Your task to perform on an android device: move a message to another label in the gmail app Image 0: 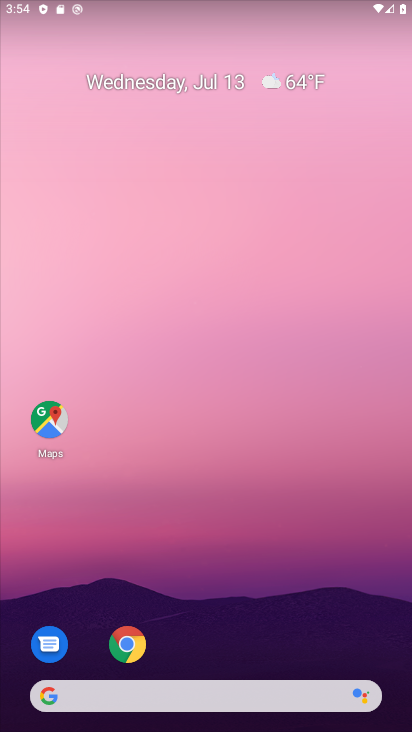
Step 0: drag from (218, 619) to (135, 49)
Your task to perform on an android device: move a message to another label in the gmail app Image 1: 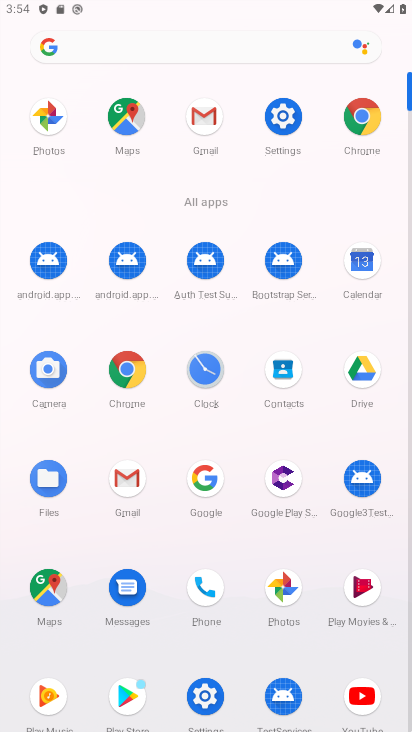
Step 1: click (124, 480)
Your task to perform on an android device: move a message to another label in the gmail app Image 2: 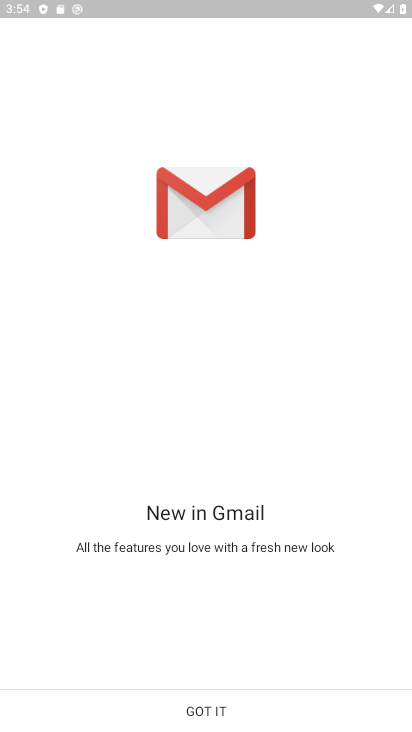
Step 2: click (203, 704)
Your task to perform on an android device: move a message to another label in the gmail app Image 3: 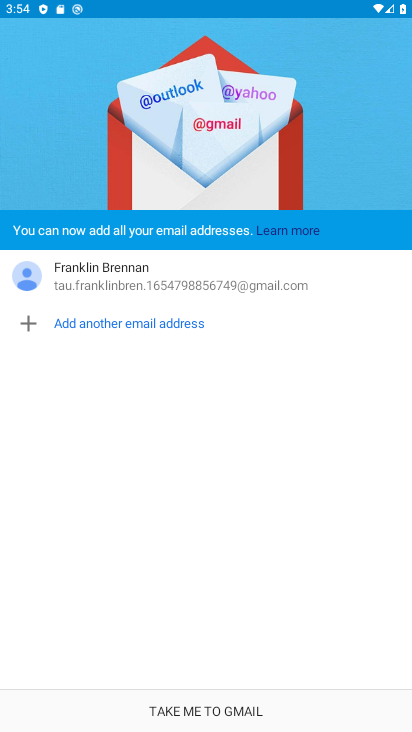
Step 3: click (203, 704)
Your task to perform on an android device: move a message to another label in the gmail app Image 4: 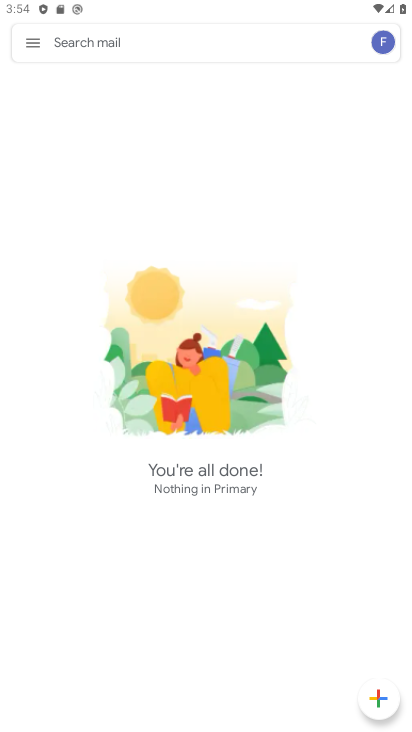
Step 4: task complete